Your task to perform on an android device: Search for Mexican restaurants on Maps Image 0: 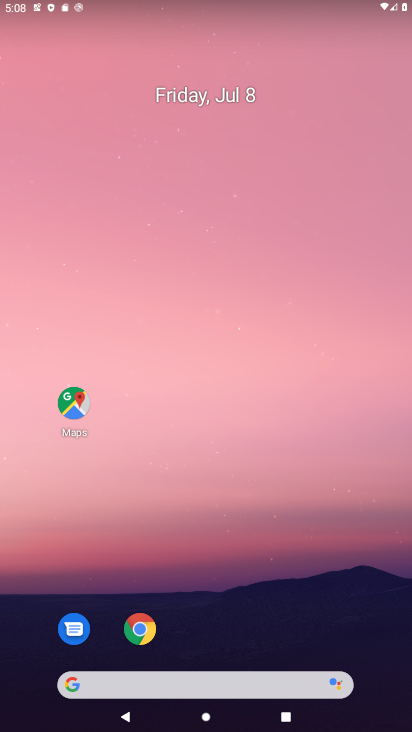
Step 0: press home button
Your task to perform on an android device: Search for Mexican restaurants on Maps Image 1: 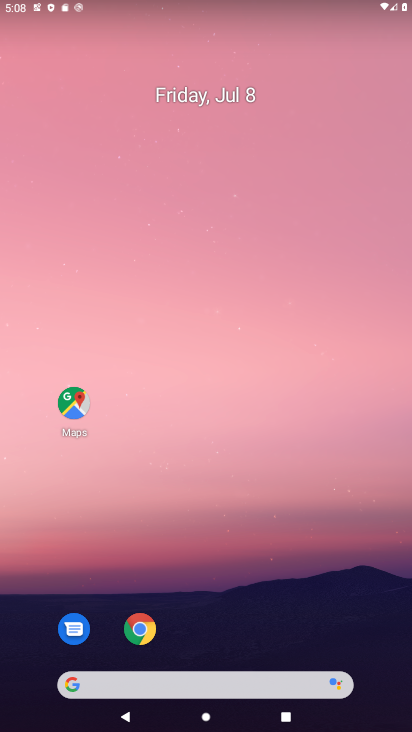
Step 1: click (67, 403)
Your task to perform on an android device: Search for Mexican restaurants on Maps Image 2: 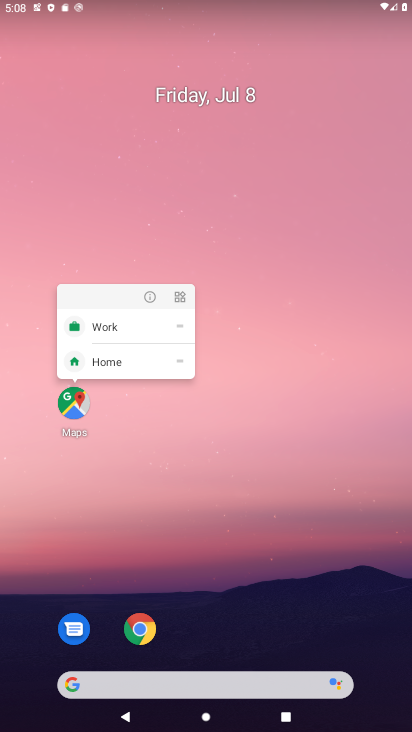
Step 2: click (77, 412)
Your task to perform on an android device: Search for Mexican restaurants on Maps Image 3: 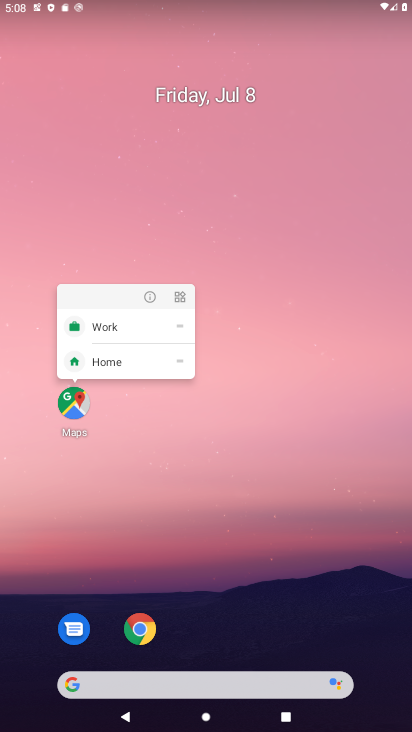
Step 3: click (77, 412)
Your task to perform on an android device: Search for Mexican restaurants on Maps Image 4: 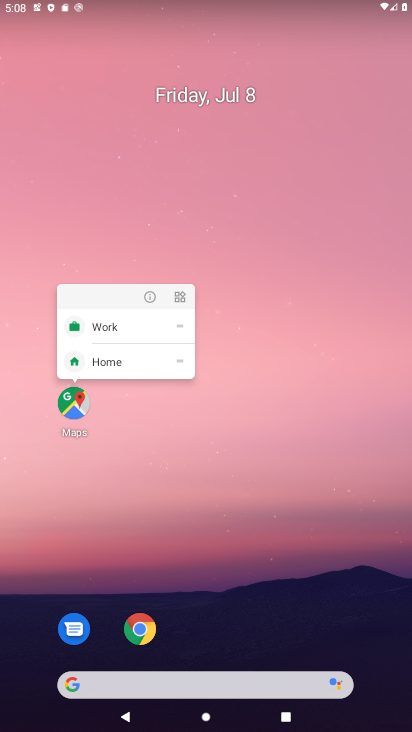
Step 4: click (77, 412)
Your task to perform on an android device: Search for Mexican restaurants on Maps Image 5: 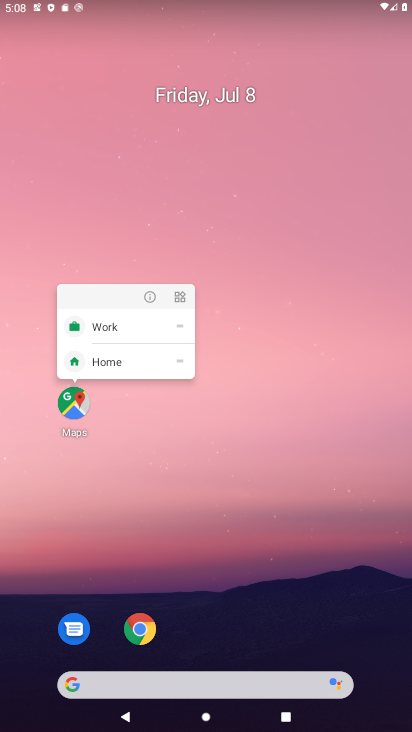
Step 5: click (77, 412)
Your task to perform on an android device: Search for Mexican restaurants on Maps Image 6: 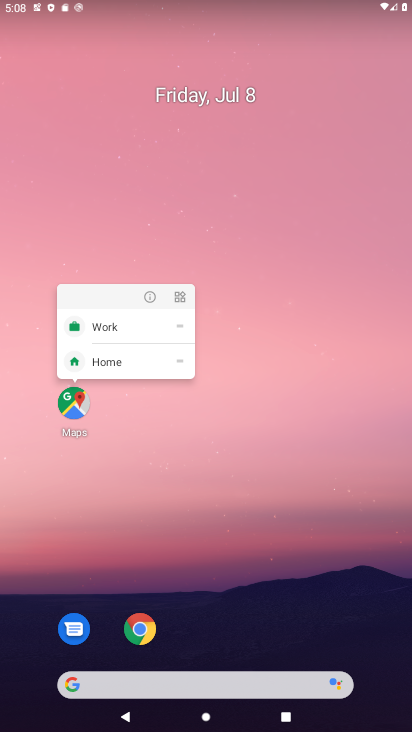
Step 6: click (203, 516)
Your task to perform on an android device: Search for Mexican restaurants on Maps Image 7: 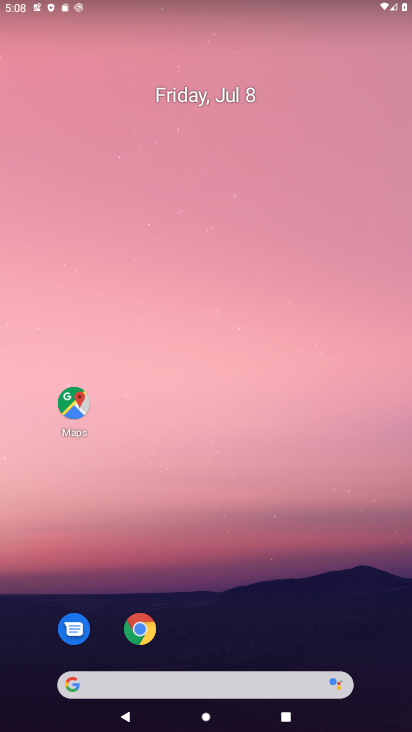
Step 7: drag from (269, 616) to (285, 2)
Your task to perform on an android device: Search for Mexican restaurants on Maps Image 8: 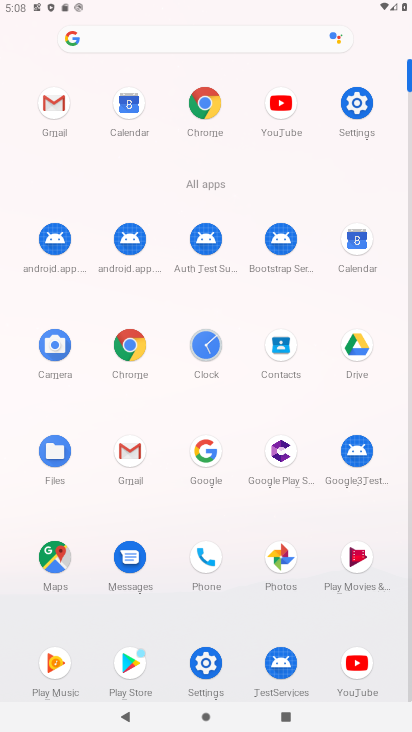
Step 8: click (51, 566)
Your task to perform on an android device: Search for Mexican restaurants on Maps Image 9: 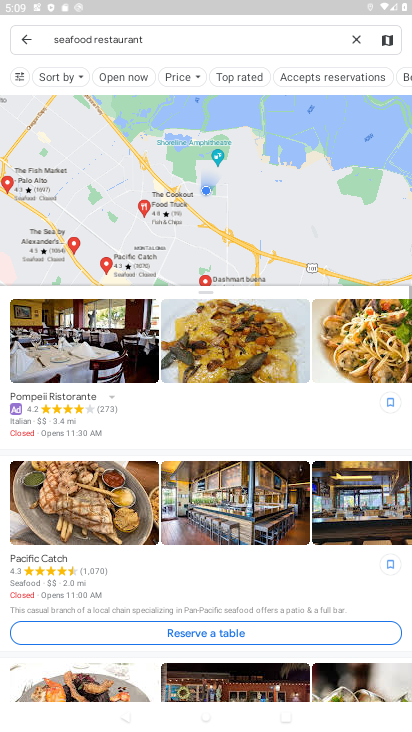
Step 9: press back button
Your task to perform on an android device: Search for Mexican restaurants on Maps Image 10: 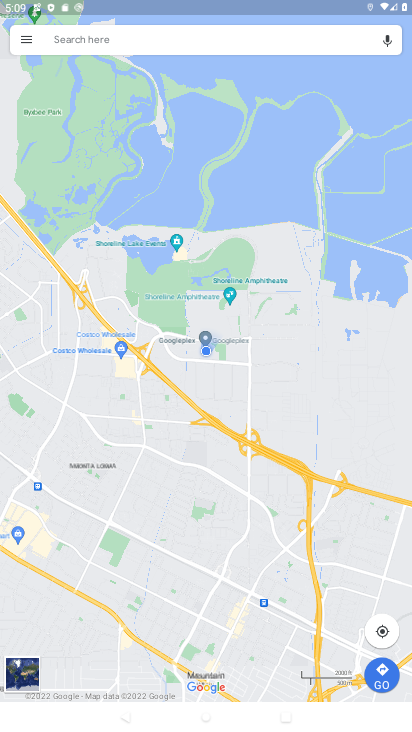
Step 10: click (143, 40)
Your task to perform on an android device: Search for Mexican restaurants on Maps Image 11: 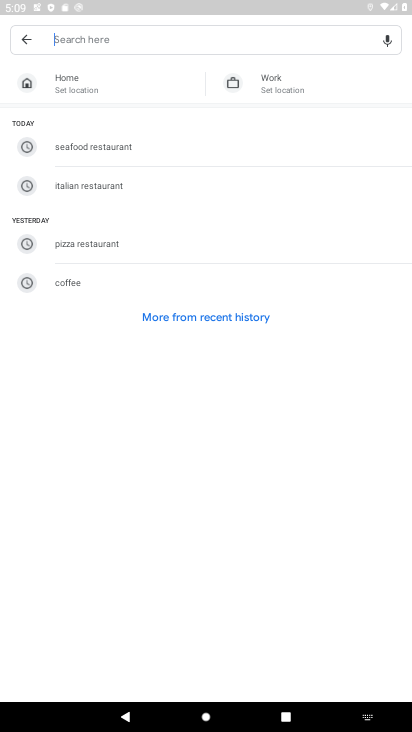
Step 11: type "Mexican restaurants"
Your task to perform on an android device: Search for Mexican restaurants on Maps Image 12: 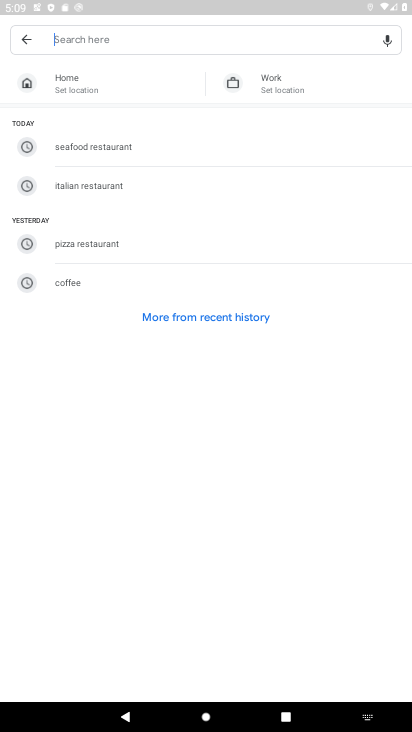
Step 12: click (113, 37)
Your task to perform on an android device: Search for Mexican restaurants on Maps Image 13: 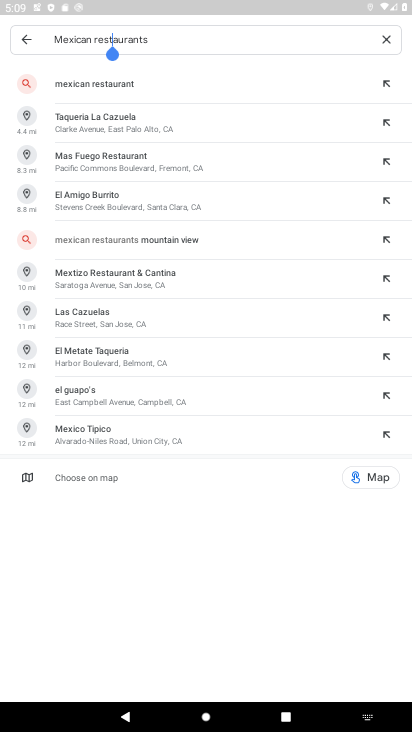
Step 13: click (110, 85)
Your task to perform on an android device: Search for Mexican restaurants on Maps Image 14: 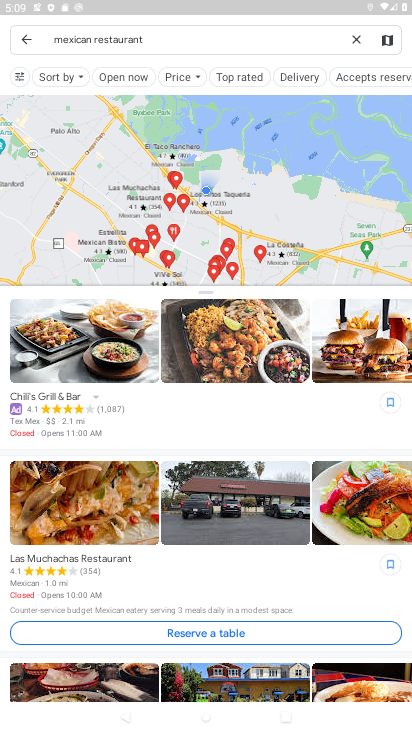
Step 14: task complete